Your task to perform on an android device: move a message to another label in the gmail app Image 0: 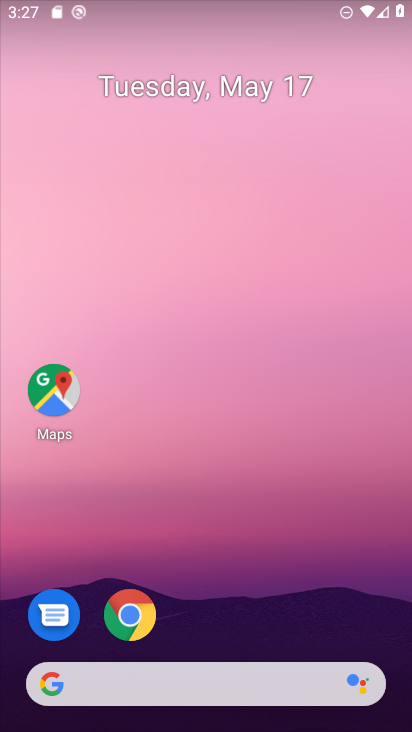
Step 0: drag from (186, 725) to (193, 148)
Your task to perform on an android device: move a message to another label in the gmail app Image 1: 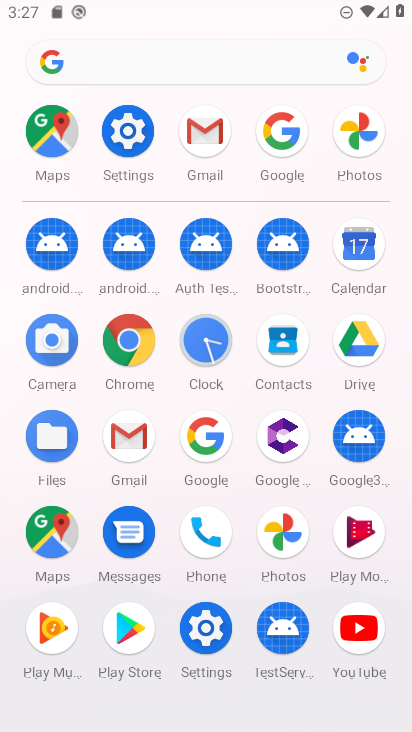
Step 1: click (129, 431)
Your task to perform on an android device: move a message to another label in the gmail app Image 2: 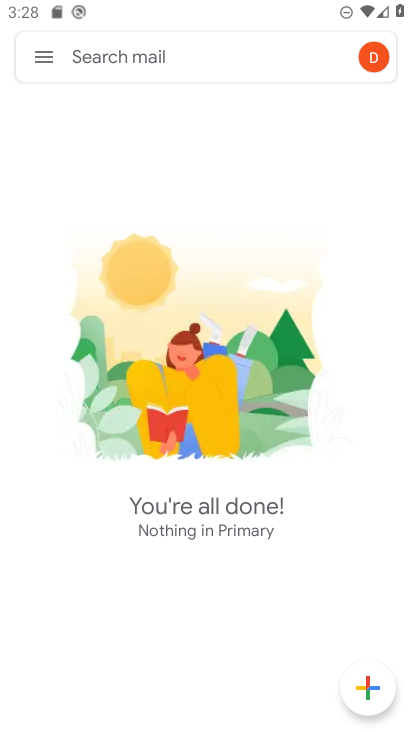
Step 2: task complete